Your task to perform on an android device: delete the emails in spam in the gmail app Image 0: 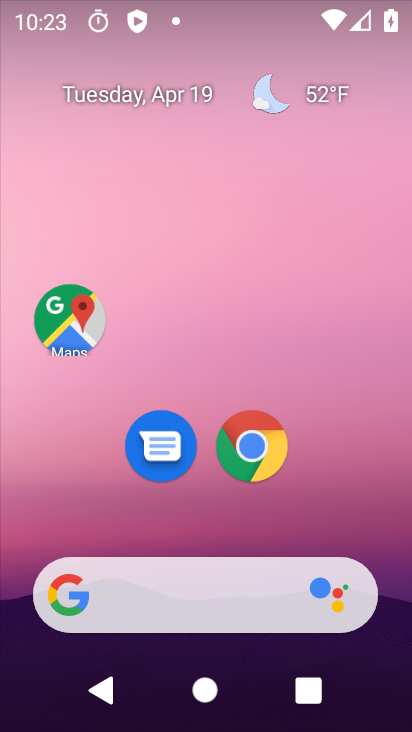
Step 0: drag from (364, 305) to (351, 161)
Your task to perform on an android device: delete the emails in spam in the gmail app Image 1: 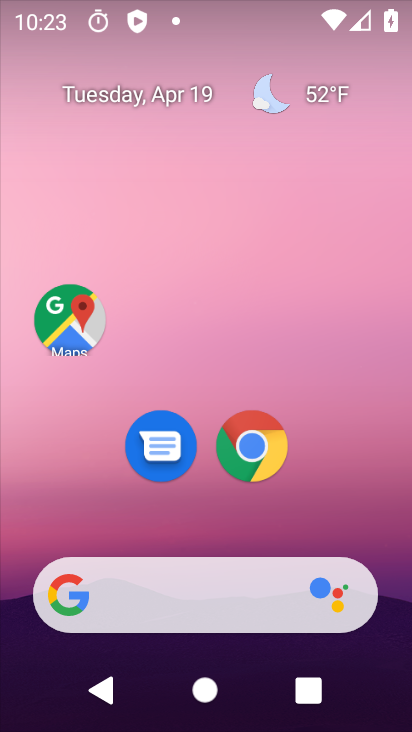
Step 1: drag from (384, 476) to (365, 134)
Your task to perform on an android device: delete the emails in spam in the gmail app Image 2: 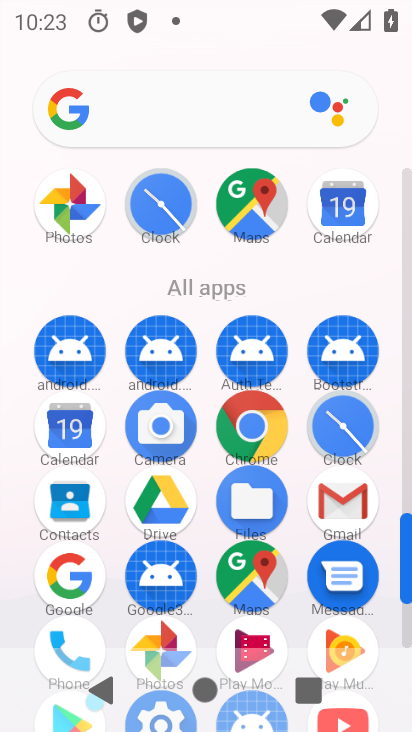
Step 2: click (352, 502)
Your task to perform on an android device: delete the emails in spam in the gmail app Image 3: 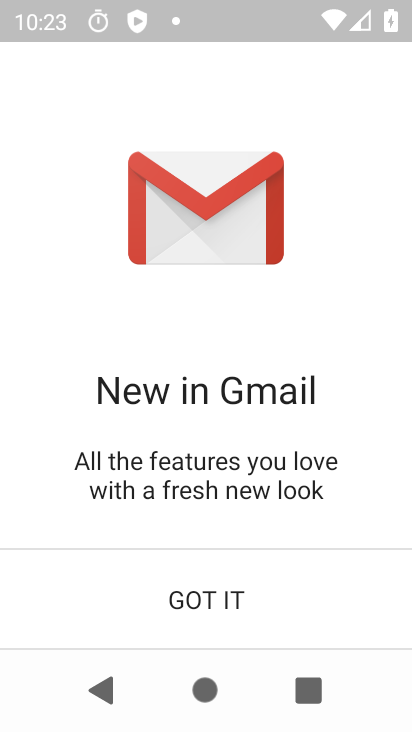
Step 3: click (200, 591)
Your task to perform on an android device: delete the emails in spam in the gmail app Image 4: 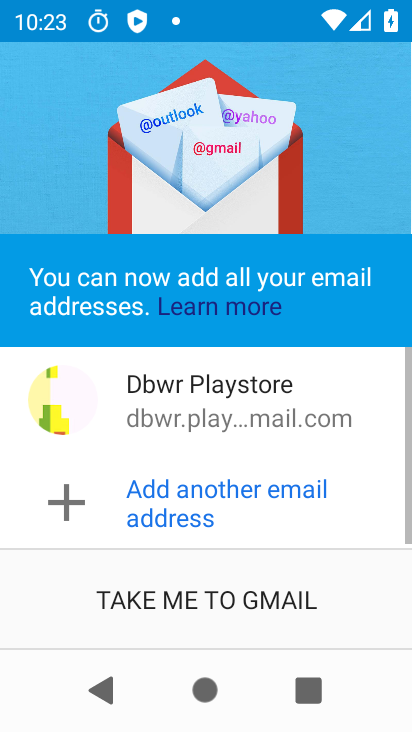
Step 4: click (200, 591)
Your task to perform on an android device: delete the emails in spam in the gmail app Image 5: 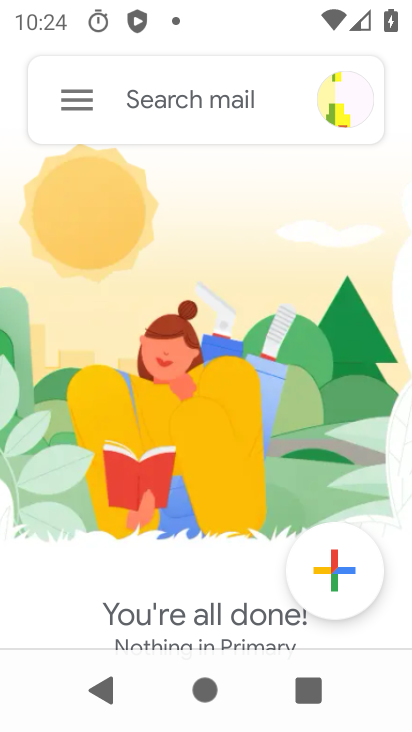
Step 5: click (76, 103)
Your task to perform on an android device: delete the emails in spam in the gmail app Image 6: 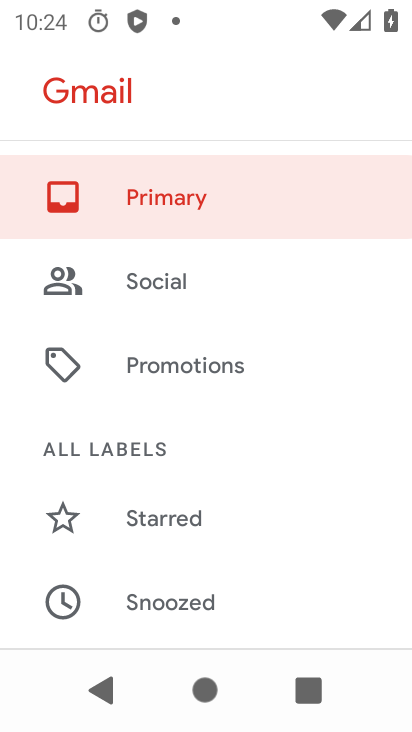
Step 6: drag from (274, 370) to (282, 222)
Your task to perform on an android device: delete the emails in spam in the gmail app Image 7: 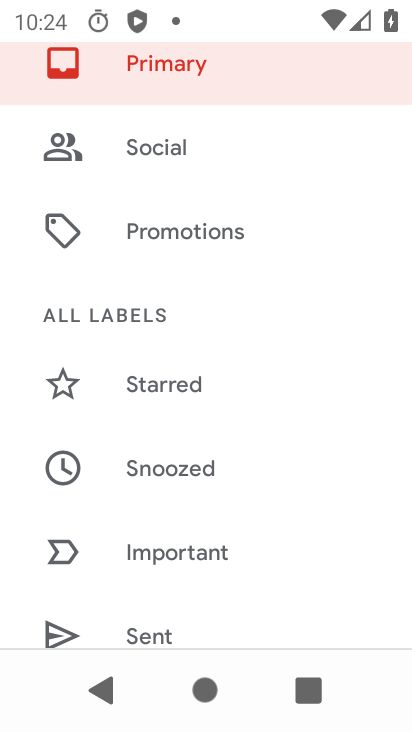
Step 7: drag from (280, 545) to (293, 221)
Your task to perform on an android device: delete the emails in spam in the gmail app Image 8: 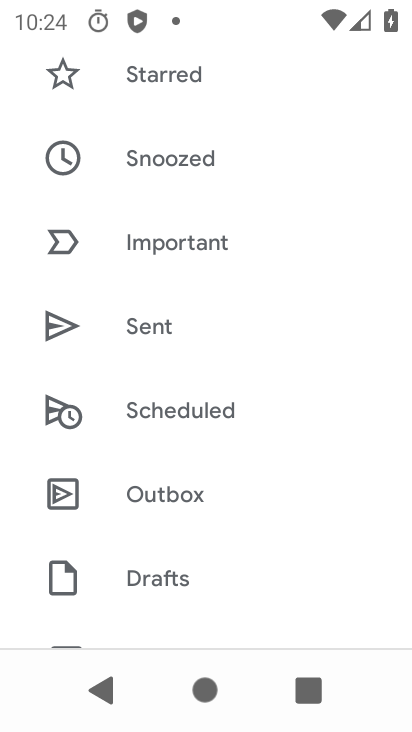
Step 8: drag from (293, 450) to (312, 203)
Your task to perform on an android device: delete the emails in spam in the gmail app Image 9: 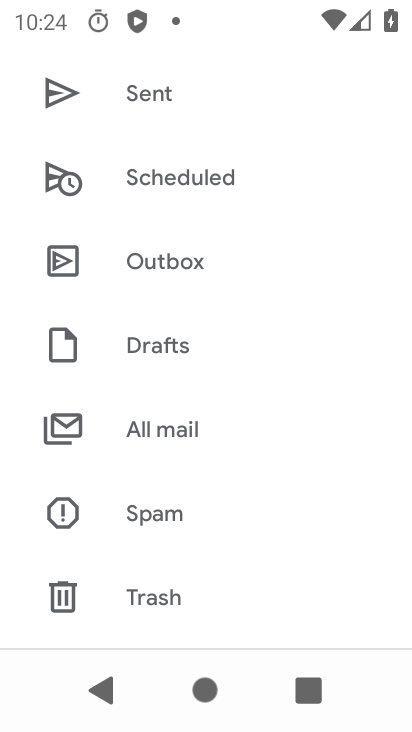
Step 9: click (65, 506)
Your task to perform on an android device: delete the emails in spam in the gmail app Image 10: 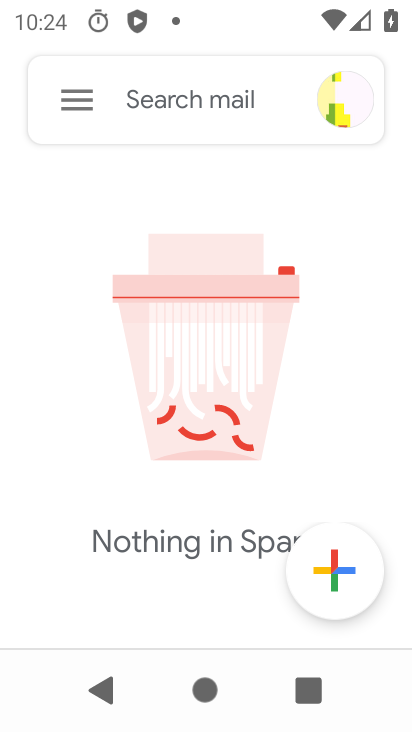
Step 10: task complete